Your task to perform on an android device: star an email in the gmail app Image 0: 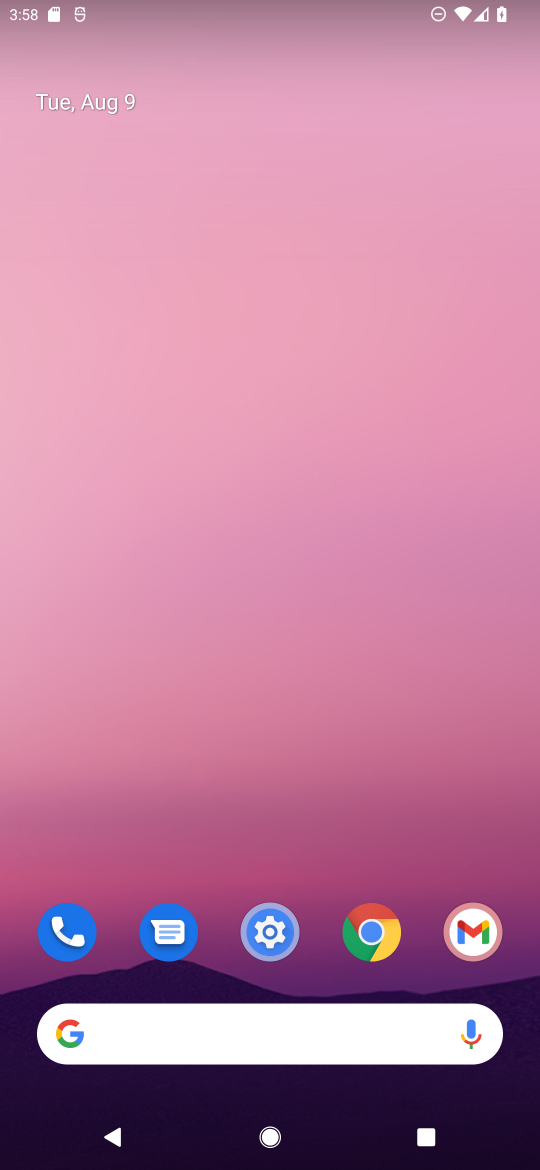
Step 0: click (478, 944)
Your task to perform on an android device: star an email in the gmail app Image 1: 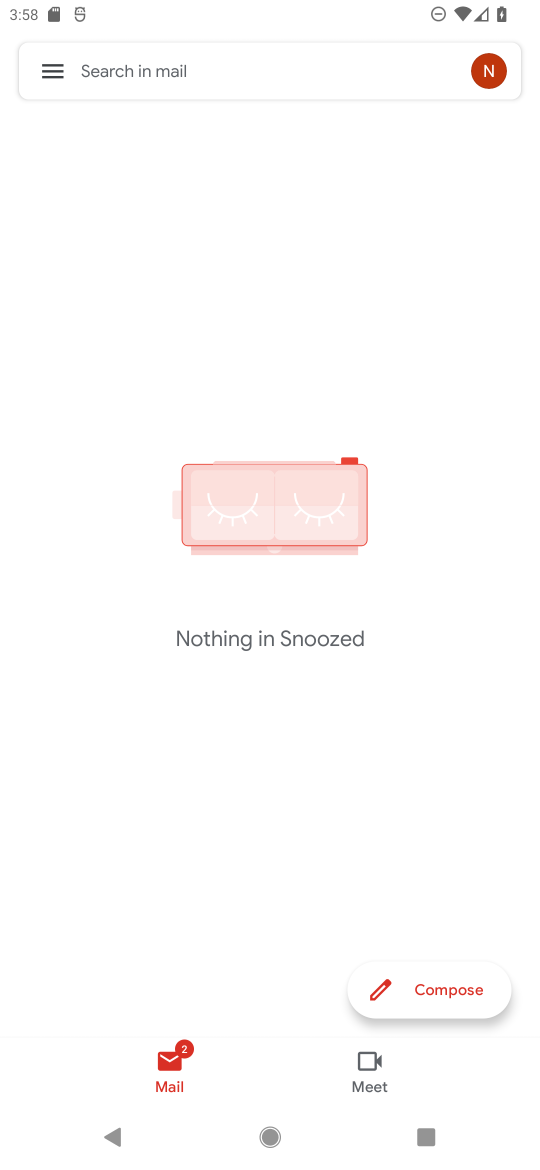
Step 1: click (55, 72)
Your task to perform on an android device: star an email in the gmail app Image 2: 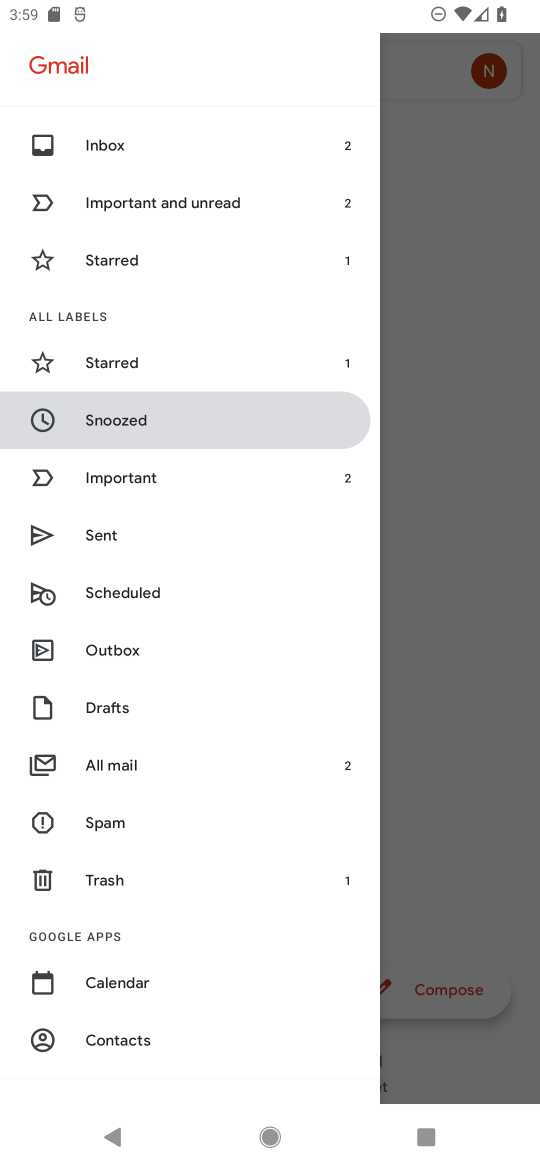
Step 2: click (108, 367)
Your task to perform on an android device: star an email in the gmail app Image 3: 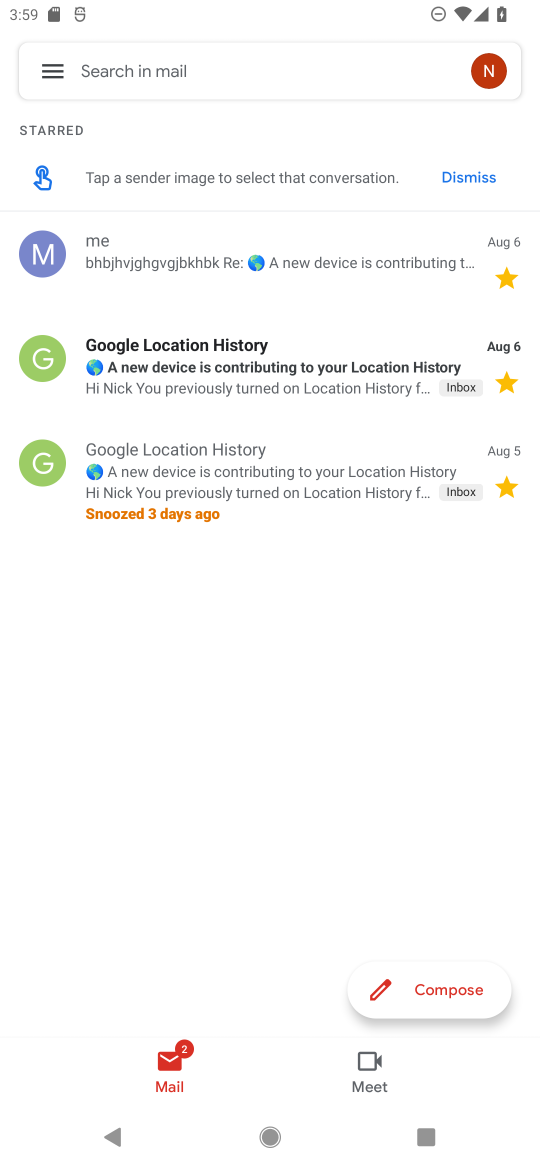
Step 3: click (70, 90)
Your task to perform on an android device: star an email in the gmail app Image 4: 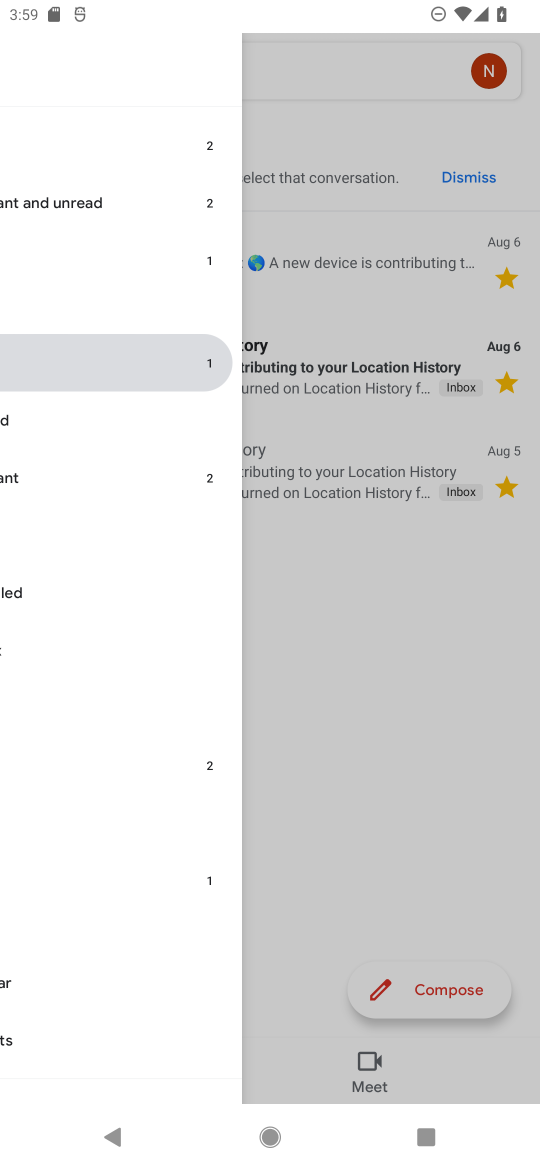
Step 4: click (61, 72)
Your task to perform on an android device: star an email in the gmail app Image 5: 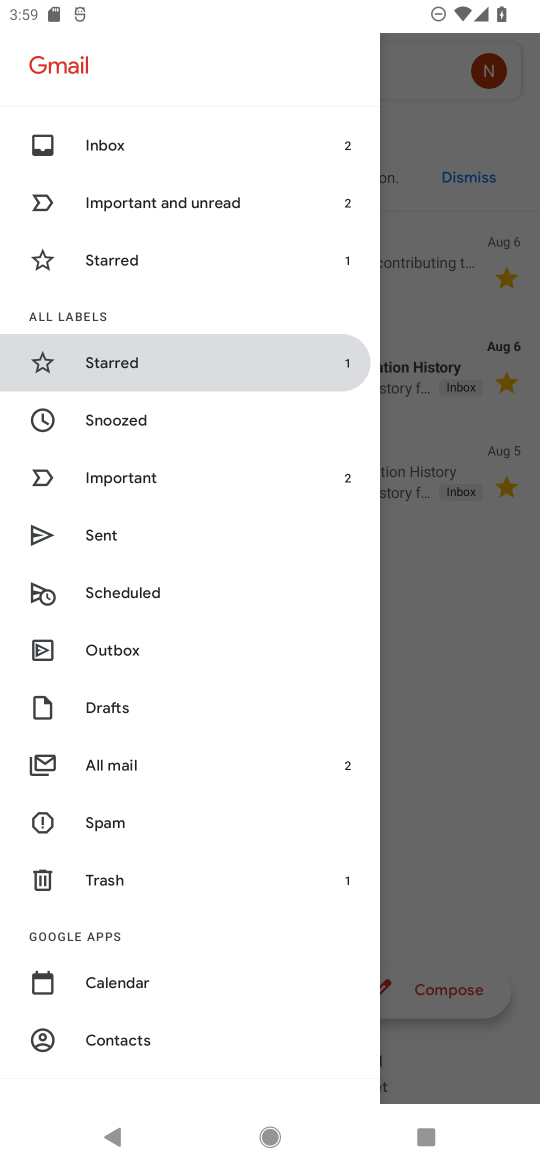
Step 5: click (203, 337)
Your task to perform on an android device: star an email in the gmail app Image 6: 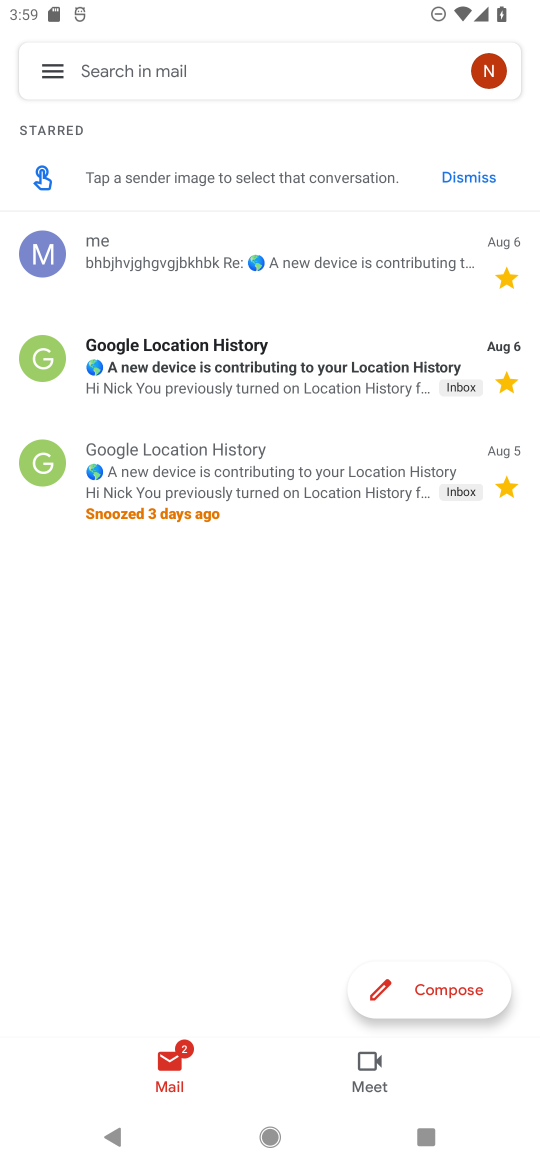
Step 6: click (472, 601)
Your task to perform on an android device: star an email in the gmail app Image 7: 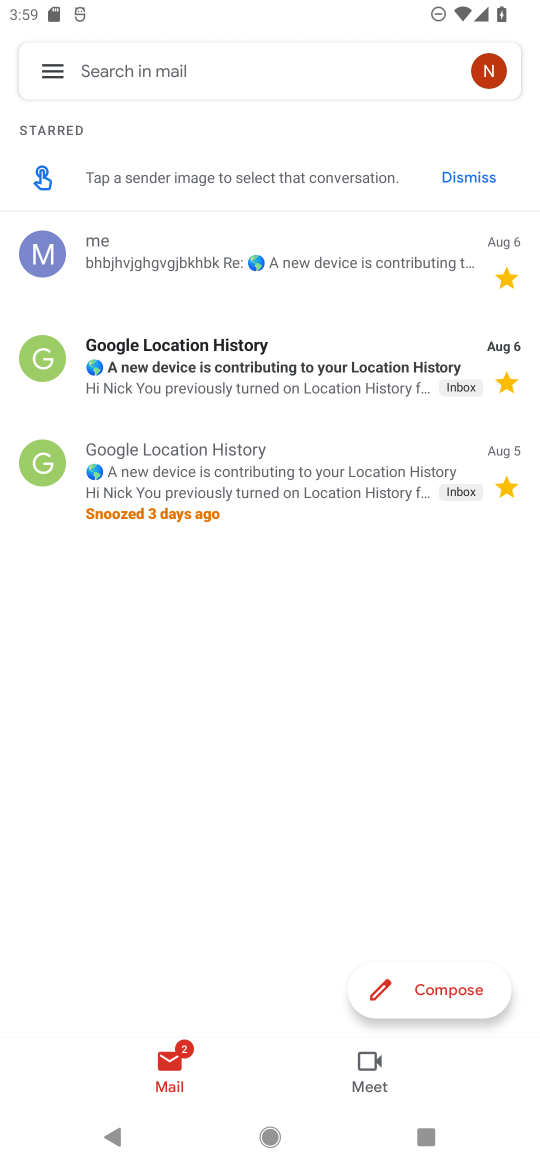
Step 7: task complete